Your task to perform on an android device: install app "Nova Launcher" Image 0: 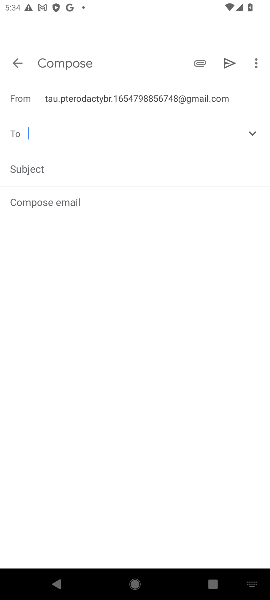
Step 0: press home button
Your task to perform on an android device: install app "Nova Launcher" Image 1: 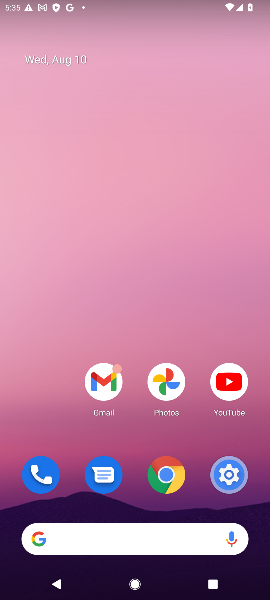
Step 1: drag from (133, 526) to (133, 119)
Your task to perform on an android device: install app "Nova Launcher" Image 2: 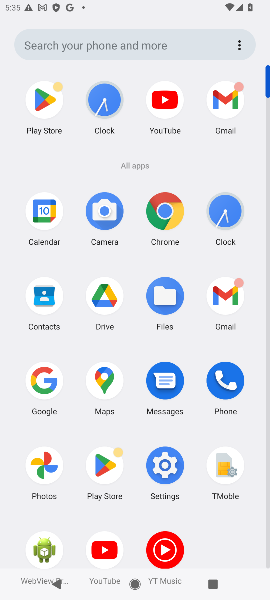
Step 2: click (102, 461)
Your task to perform on an android device: install app "Nova Launcher" Image 3: 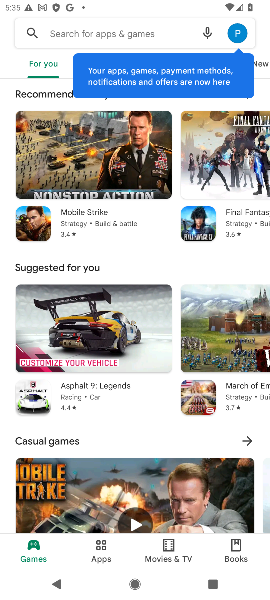
Step 3: click (133, 35)
Your task to perform on an android device: install app "Nova Launcher" Image 4: 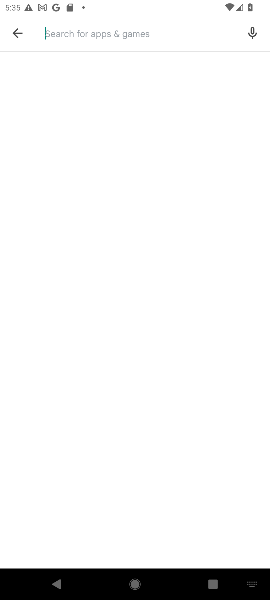
Step 4: type "Nova Launcher"
Your task to perform on an android device: install app "Nova Launcher" Image 5: 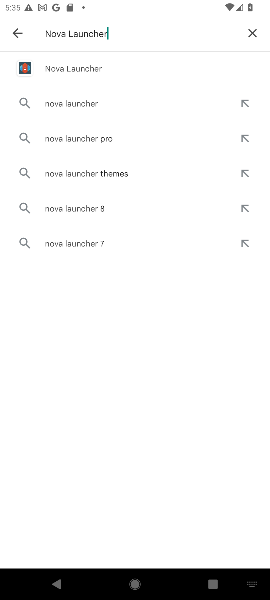
Step 5: click (106, 73)
Your task to perform on an android device: install app "Nova Launcher" Image 6: 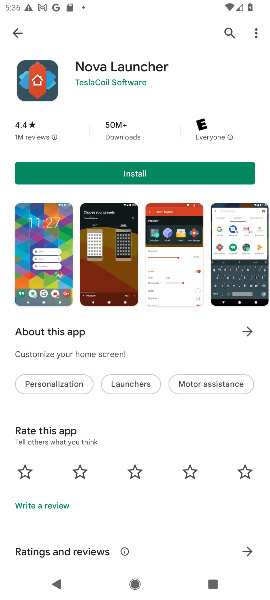
Step 6: click (126, 170)
Your task to perform on an android device: install app "Nova Launcher" Image 7: 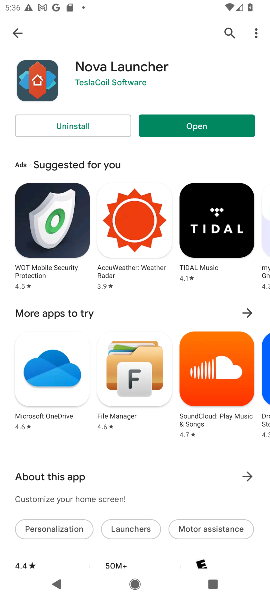
Step 7: click (224, 126)
Your task to perform on an android device: install app "Nova Launcher" Image 8: 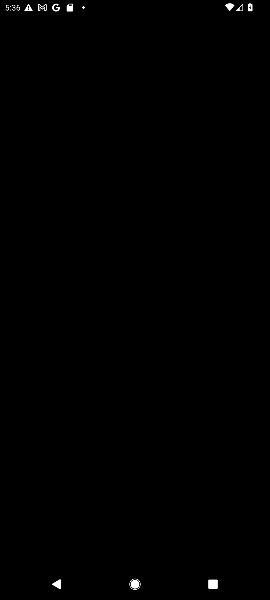
Step 8: task complete